Your task to perform on an android device: Open Chrome and go to settings Image 0: 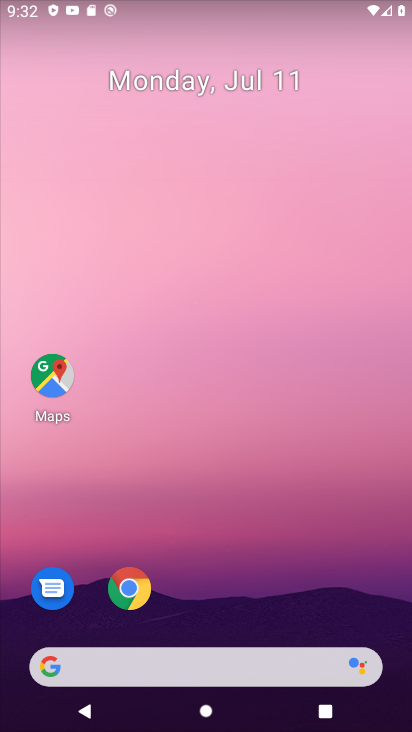
Step 0: click (270, 574)
Your task to perform on an android device: Open Chrome and go to settings Image 1: 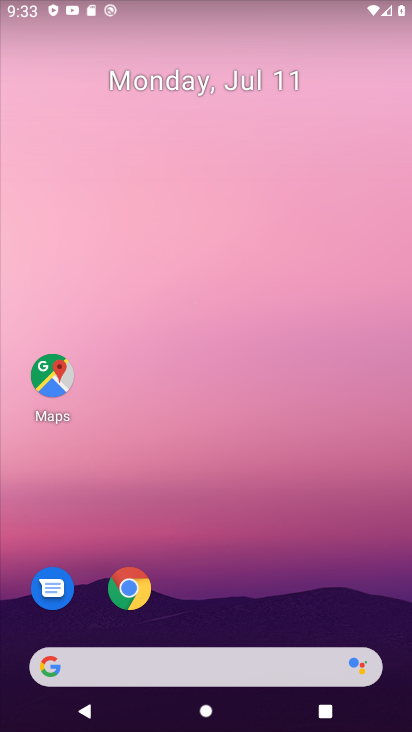
Step 1: click (122, 592)
Your task to perform on an android device: Open Chrome and go to settings Image 2: 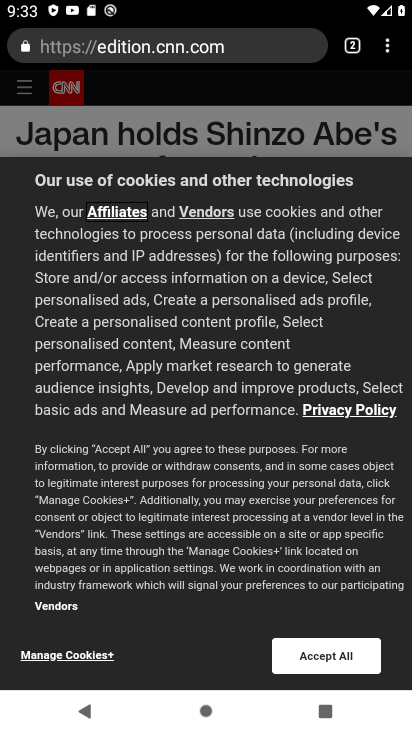
Step 2: click (386, 54)
Your task to perform on an android device: Open Chrome and go to settings Image 3: 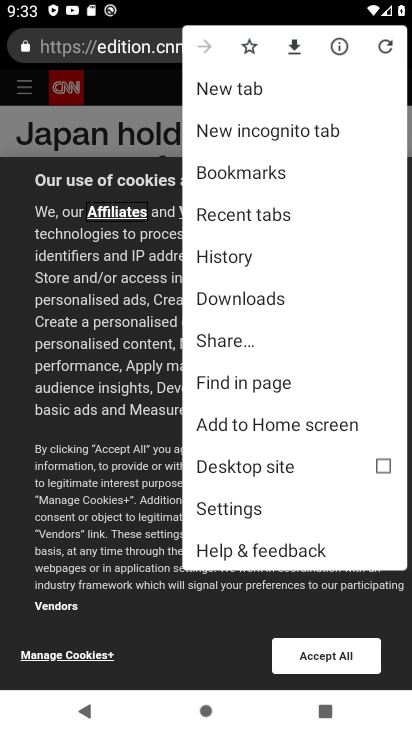
Step 3: click (266, 512)
Your task to perform on an android device: Open Chrome and go to settings Image 4: 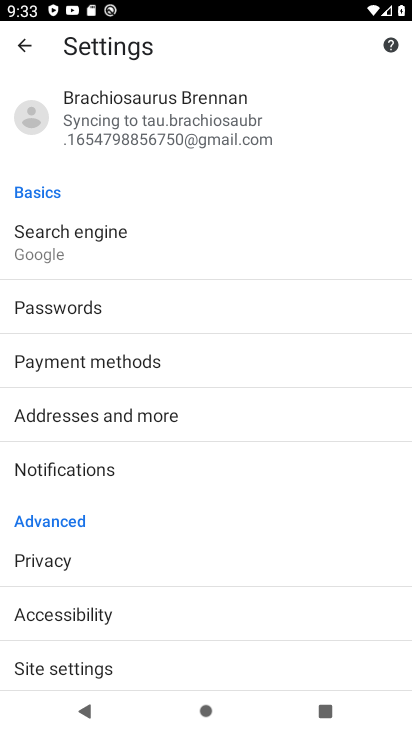
Step 4: task complete